Your task to perform on an android device: open chrome privacy settings Image 0: 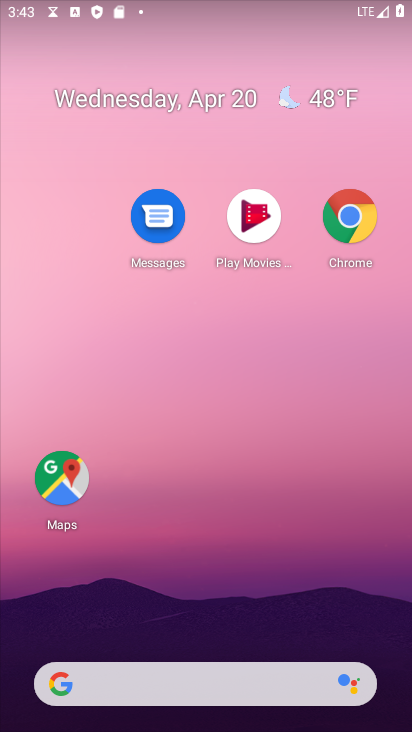
Step 0: click (358, 223)
Your task to perform on an android device: open chrome privacy settings Image 1: 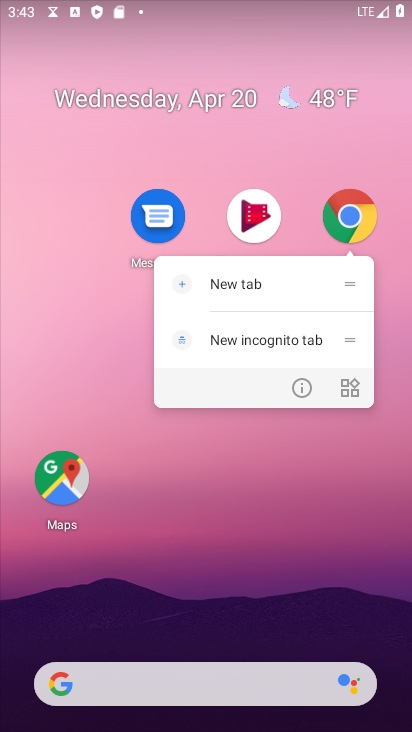
Step 1: click (298, 385)
Your task to perform on an android device: open chrome privacy settings Image 2: 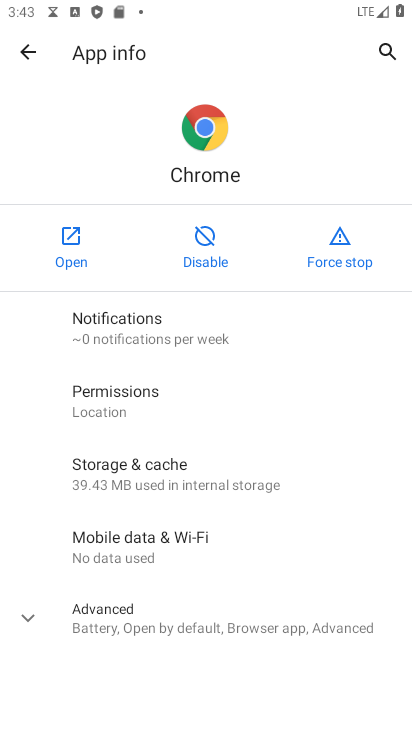
Step 2: click (67, 246)
Your task to perform on an android device: open chrome privacy settings Image 3: 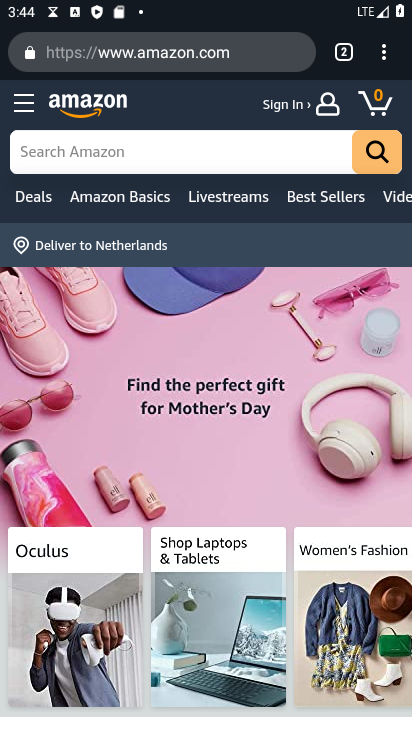
Step 3: click (384, 60)
Your task to perform on an android device: open chrome privacy settings Image 4: 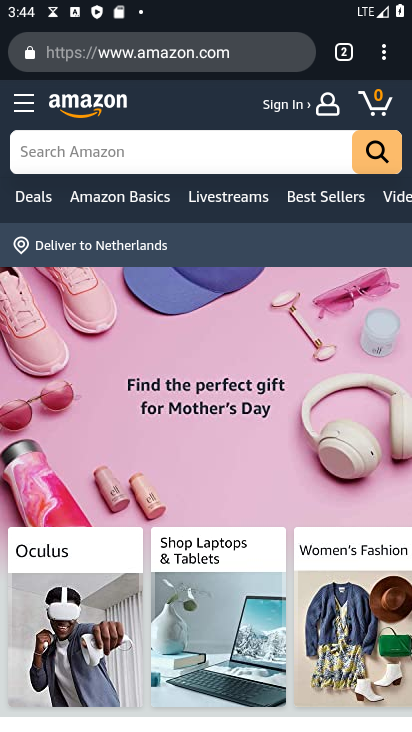
Step 4: click (383, 58)
Your task to perform on an android device: open chrome privacy settings Image 5: 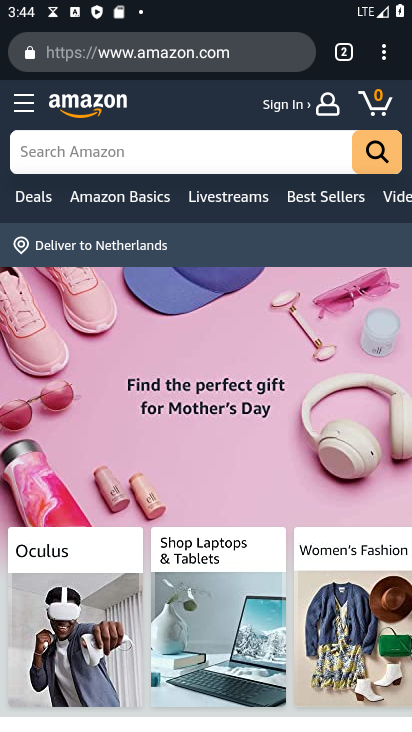
Step 5: click (384, 52)
Your task to perform on an android device: open chrome privacy settings Image 6: 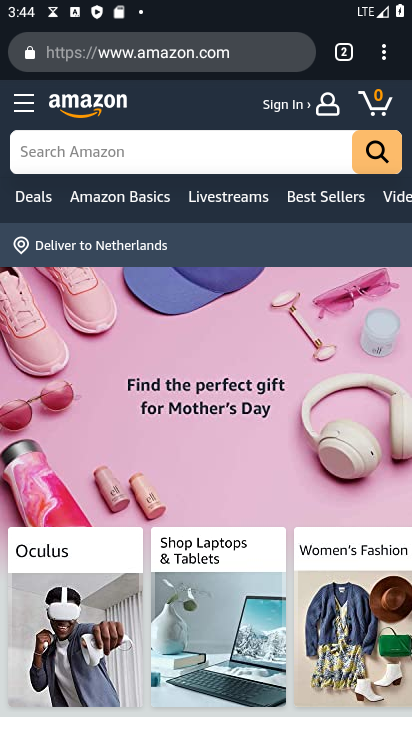
Step 6: click (387, 55)
Your task to perform on an android device: open chrome privacy settings Image 7: 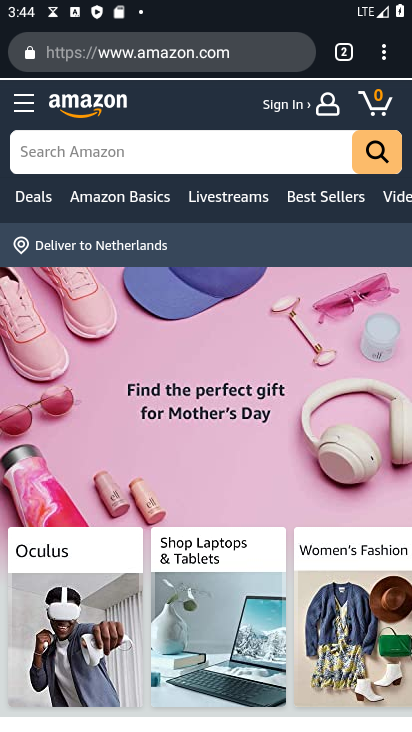
Step 7: click (383, 51)
Your task to perform on an android device: open chrome privacy settings Image 8: 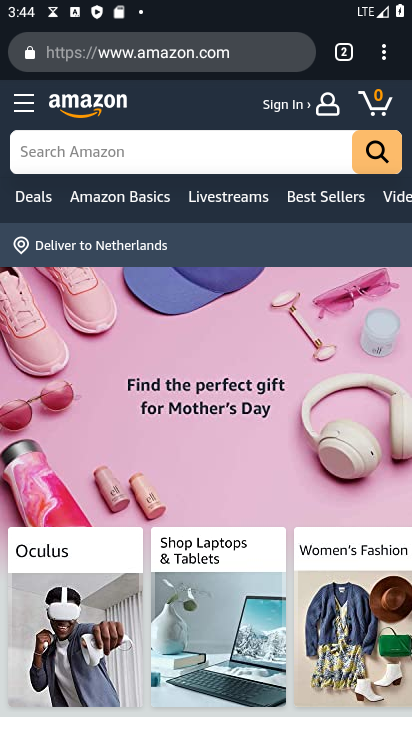
Step 8: click (387, 53)
Your task to perform on an android device: open chrome privacy settings Image 9: 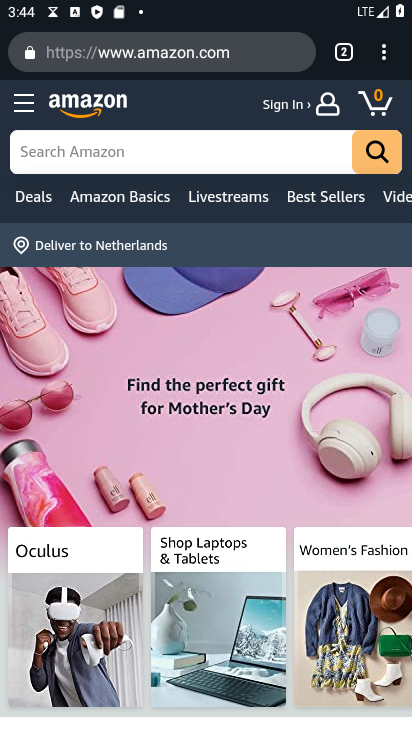
Step 9: click (395, 50)
Your task to perform on an android device: open chrome privacy settings Image 10: 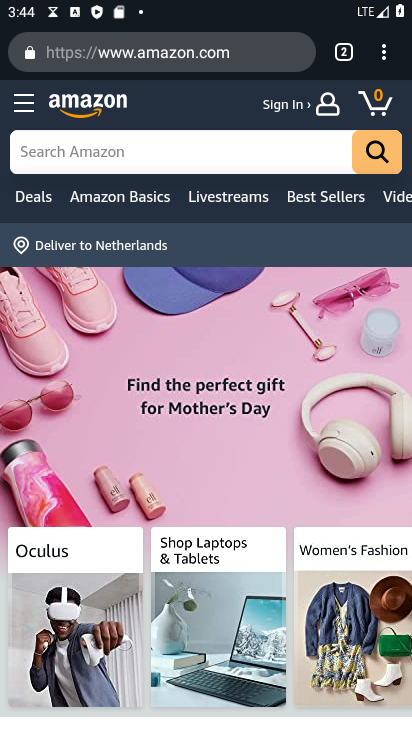
Step 10: click (381, 55)
Your task to perform on an android device: open chrome privacy settings Image 11: 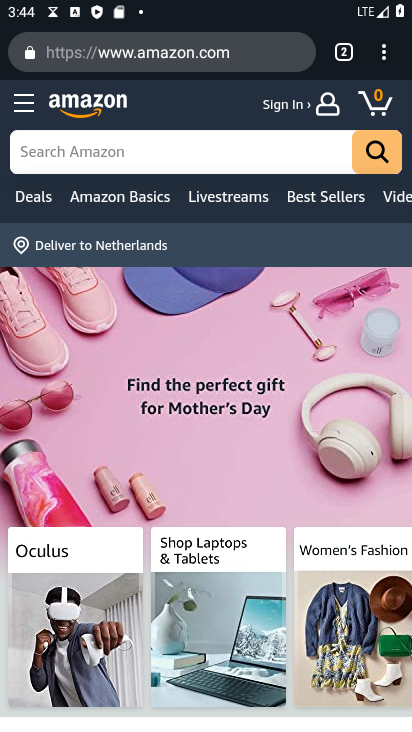
Step 11: click (385, 55)
Your task to perform on an android device: open chrome privacy settings Image 12: 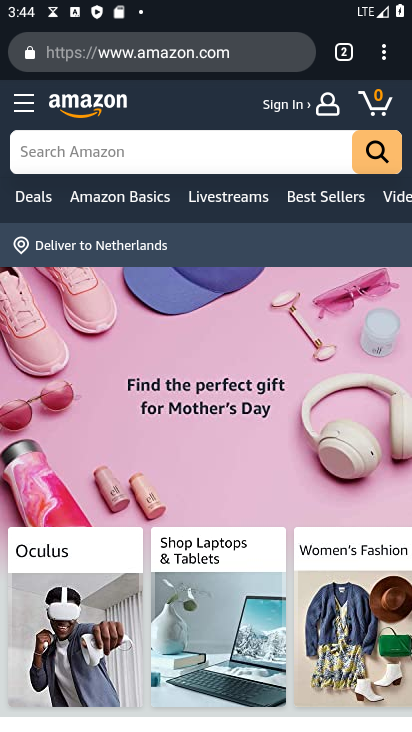
Step 12: click (388, 55)
Your task to perform on an android device: open chrome privacy settings Image 13: 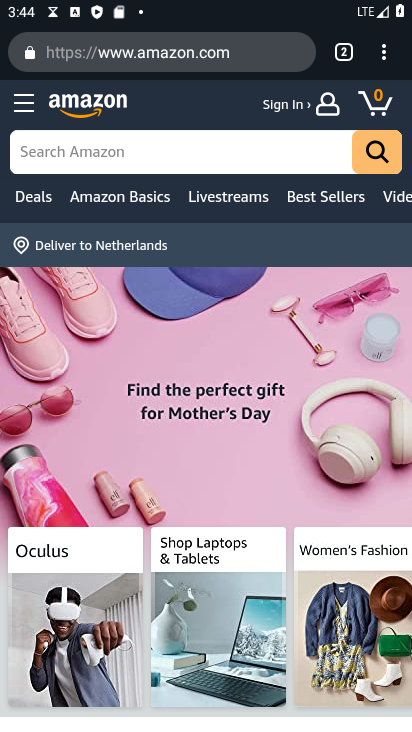
Step 13: click (384, 60)
Your task to perform on an android device: open chrome privacy settings Image 14: 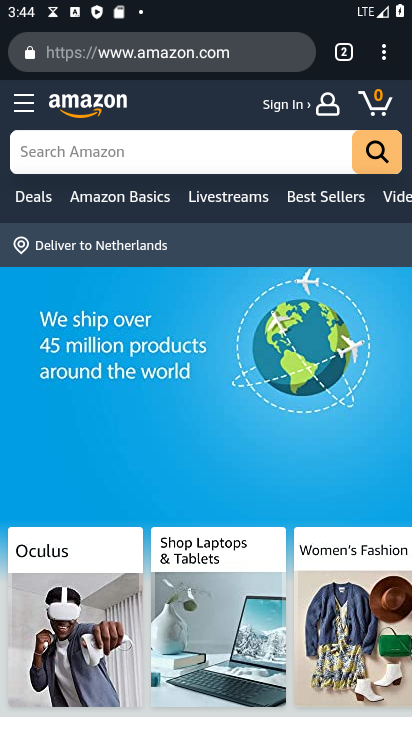
Step 14: click (389, 53)
Your task to perform on an android device: open chrome privacy settings Image 15: 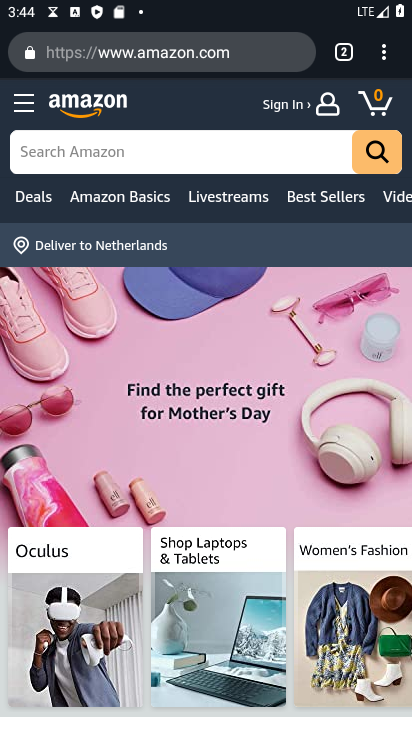
Step 15: click (382, 55)
Your task to perform on an android device: open chrome privacy settings Image 16: 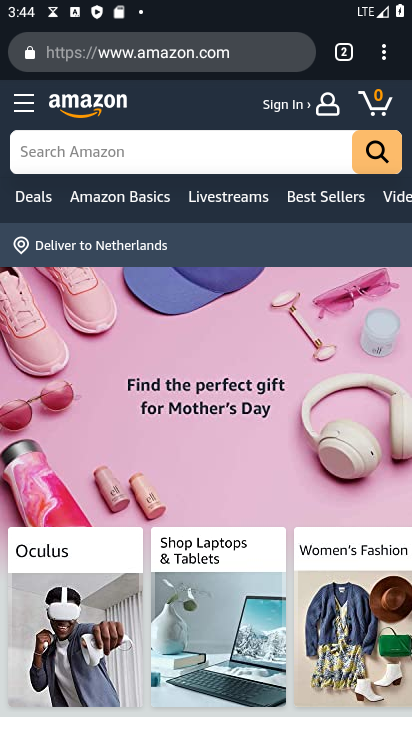
Step 16: click (384, 52)
Your task to perform on an android device: open chrome privacy settings Image 17: 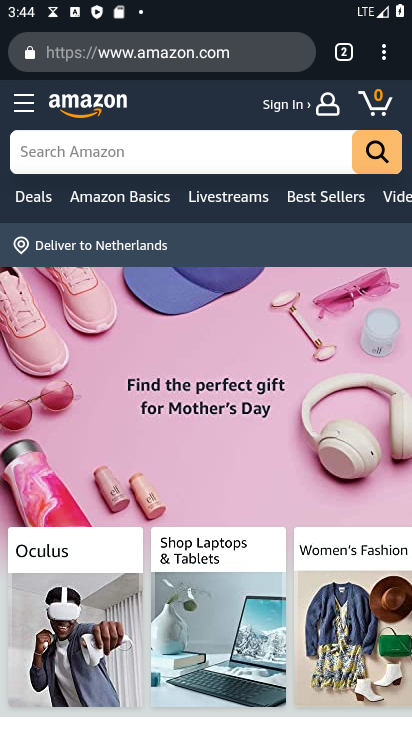
Step 17: click (388, 53)
Your task to perform on an android device: open chrome privacy settings Image 18: 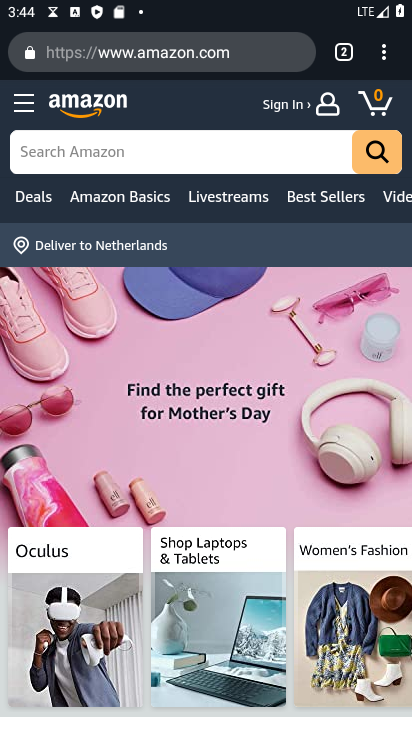
Step 18: click (387, 44)
Your task to perform on an android device: open chrome privacy settings Image 19: 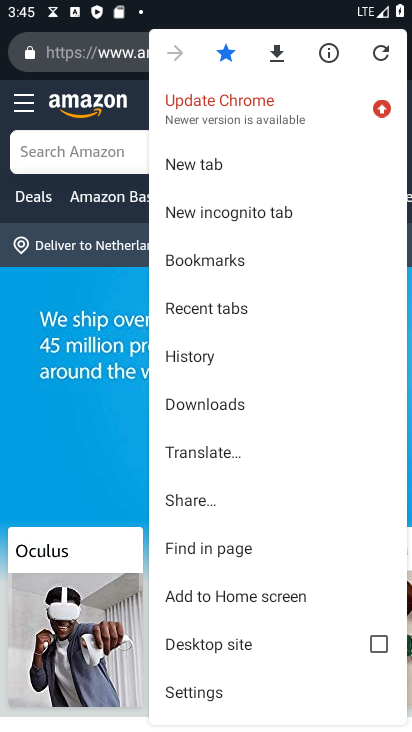
Step 19: click (233, 689)
Your task to perform on an android device: open chrome privacy settings Image 20: 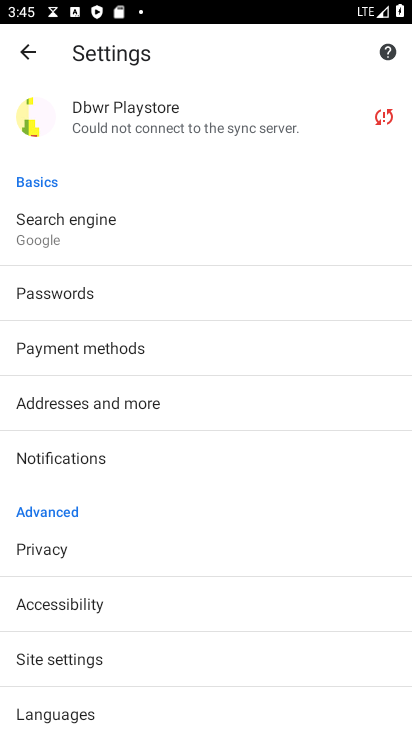
Step 20: click (93, 547)
Your task to perform on an android device: open chrome privacy settings Image 21: 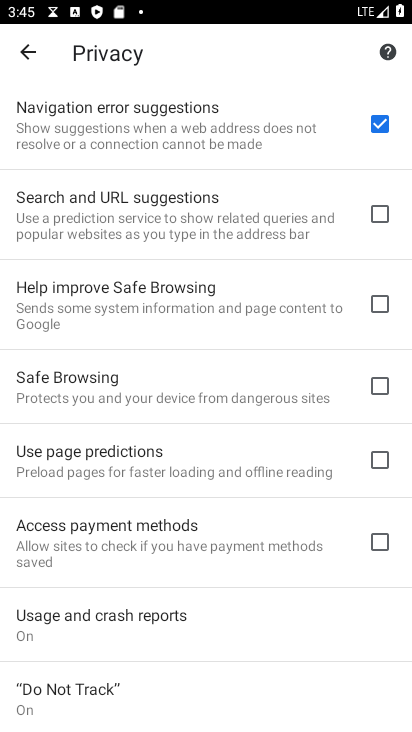
Step 21: task complete